Your task to perform on an android device: Open eBay Image 0: 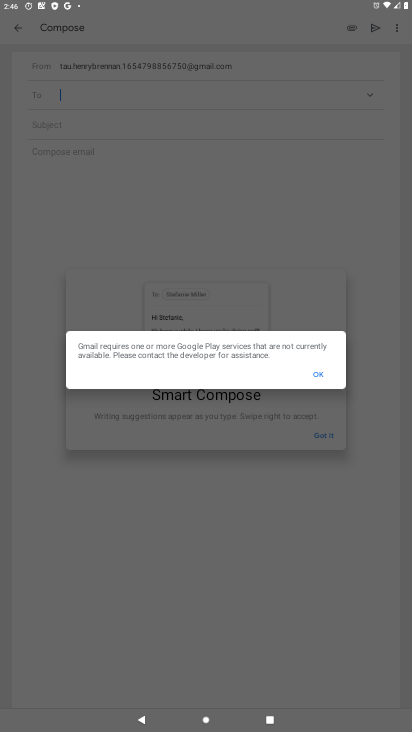
Step 0: press home button
Your task to perform on an android device: Open eBay Image 1: 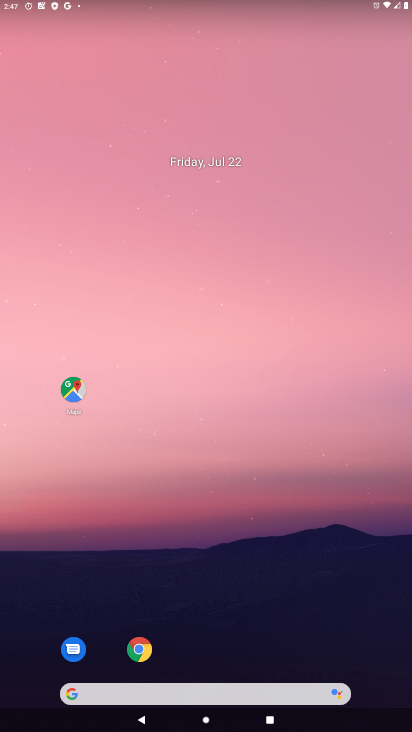
Step 1: drag from (271, 598) to (265, 109)
Your task to perform on an android device: Open eBay Image 2: 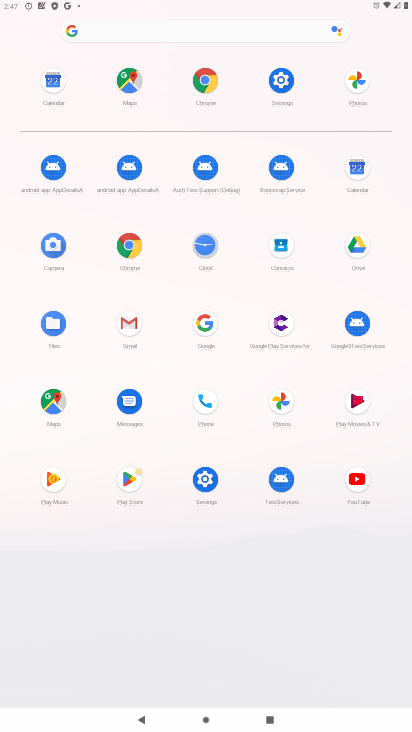
Step 2: click (199, 83)
Your task to perform on an android device: Open eBay Image 3: 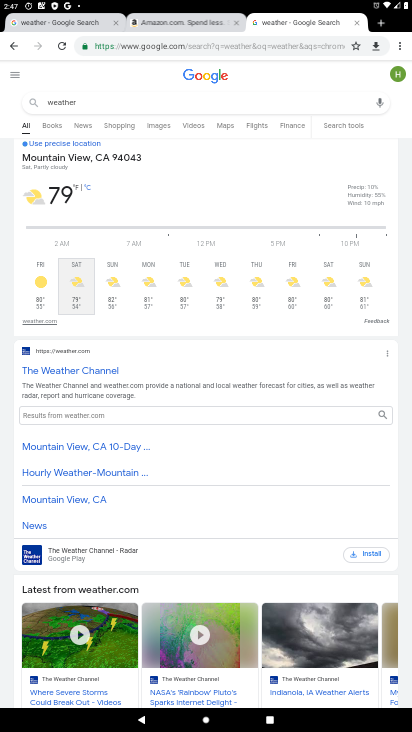
Step 3: click (176, 49)
Your task to perform on an android device: Open eBay Image 4: 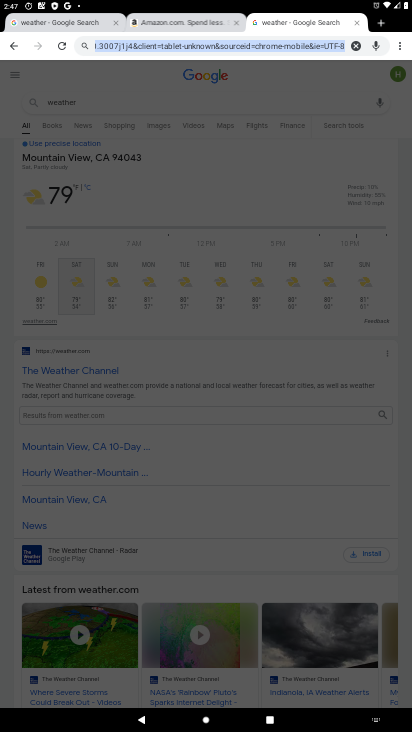
Step 4: type "ebay"
Your task to perform on an android device: Open eBay Image 5: 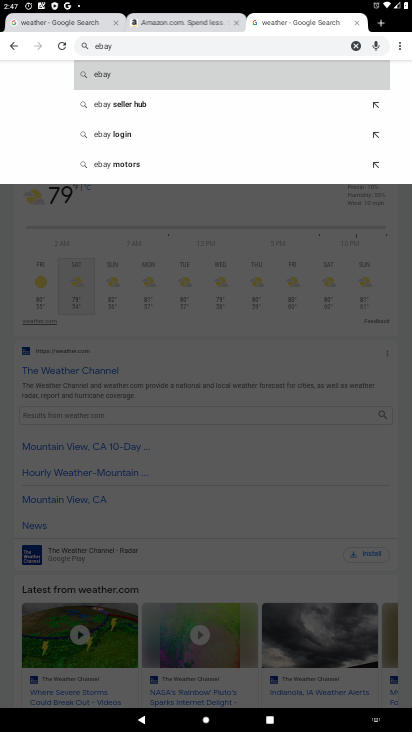
Step 5: click (142, 78)
Your task to perform on an android device: Open eBay Image 6: 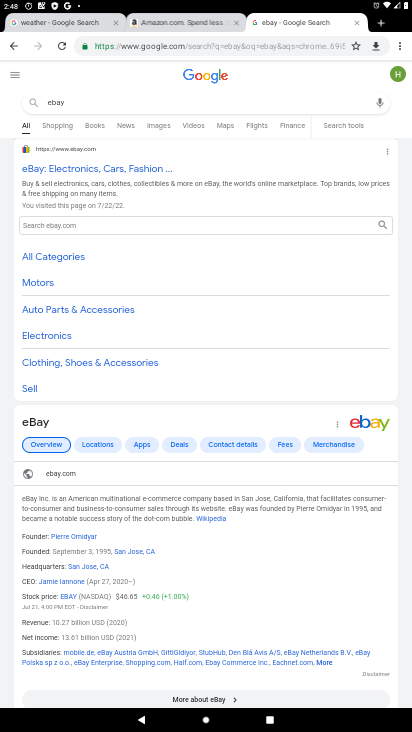
Step 6: click (92, 164)
Your task to perform on an android device: Open eBay Image 7: 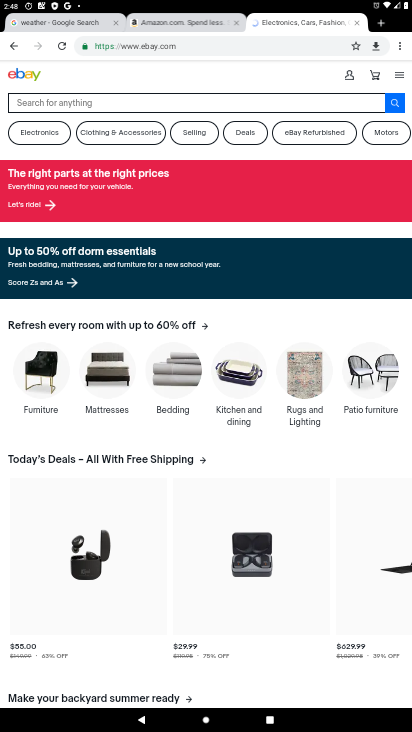
Step 7: task complete